Your task to perform on an android device: check the backup settings in the google photos Image 0: 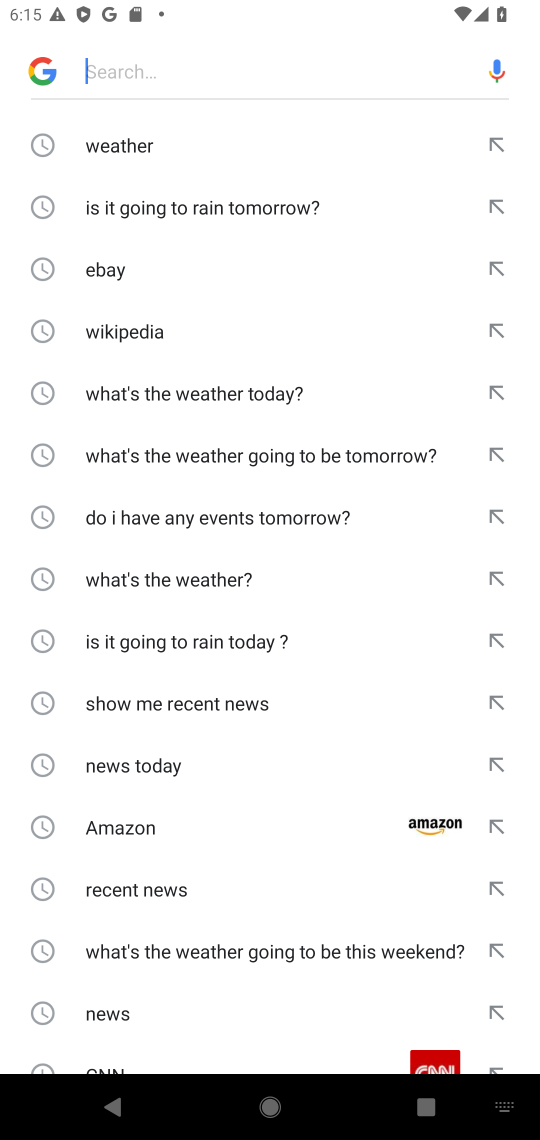
Step 0: press home button
Your task to perform on an android device: check the backup settings in the google photos Image 1: 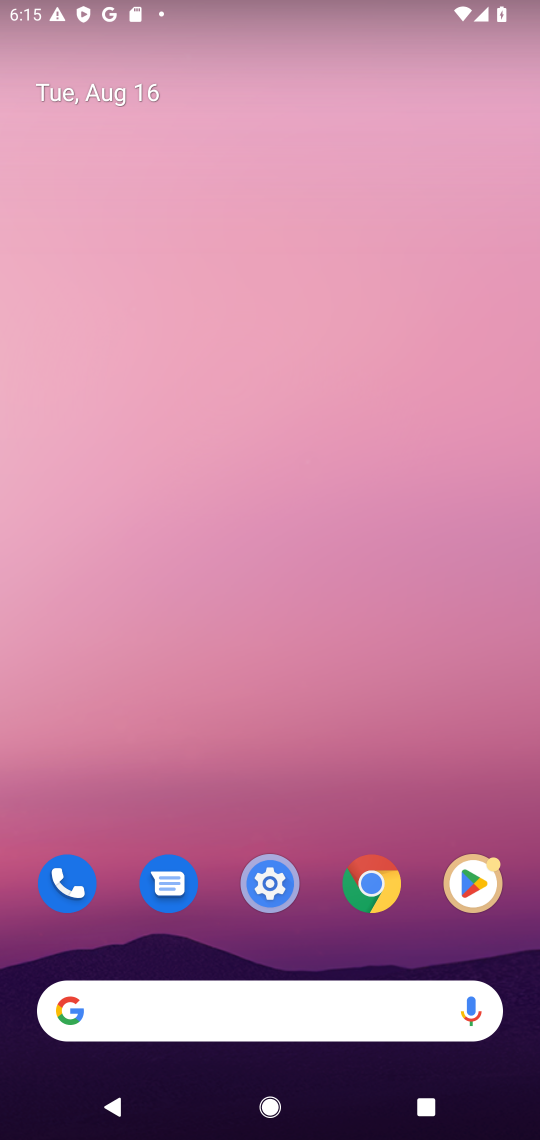
Step 1: drag from (243, 1018) to (313, 119)
Your task to perform on an android device: check the backup settings in the google photos Image 2: 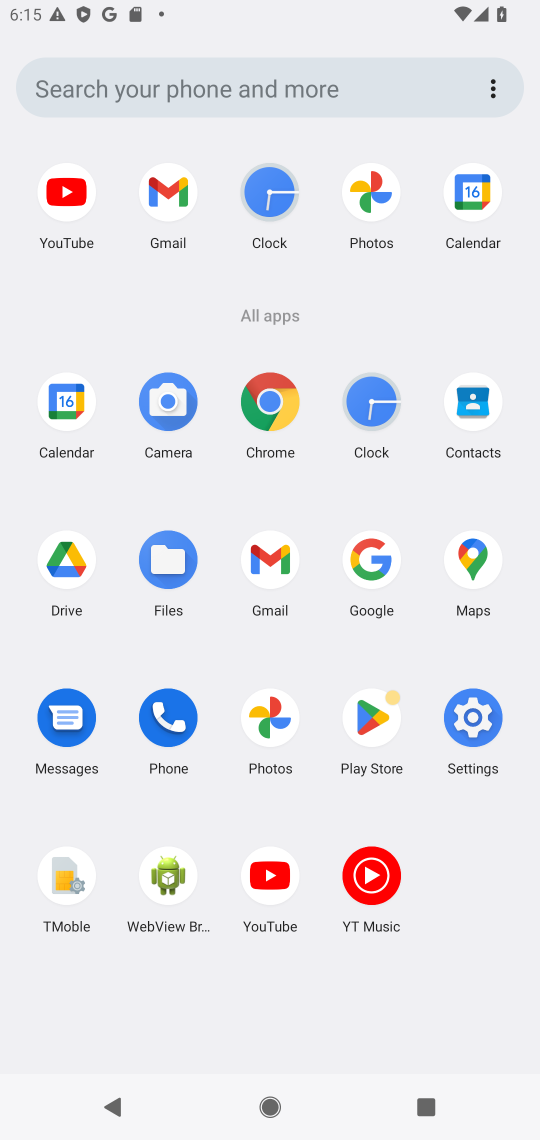
Step 2: click (265, 714)
Your task to perform on an android device: check the backup settings in the google photos Image 3: 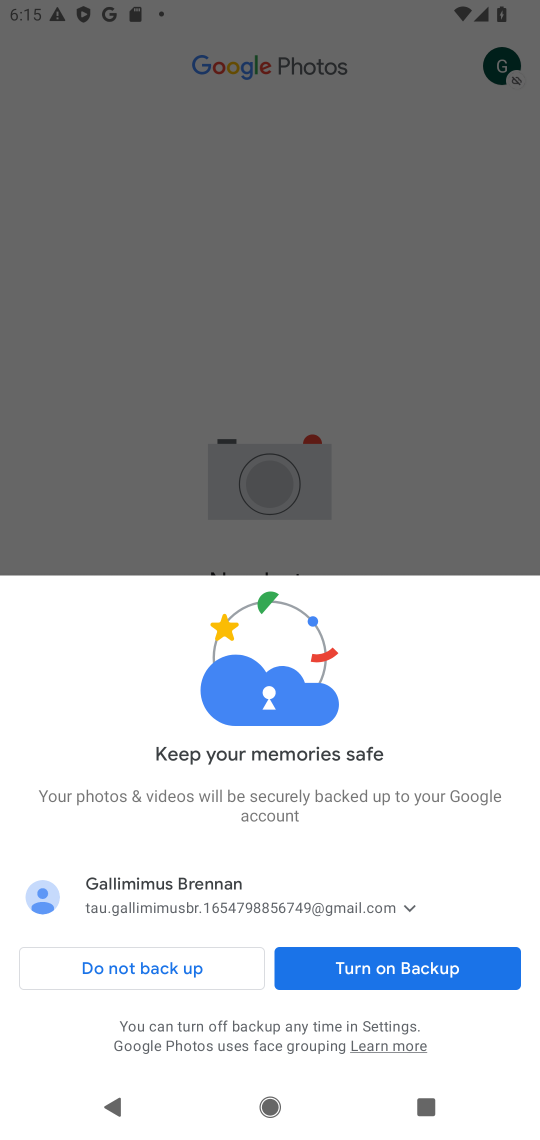
Step 3: click (349, 970)
Your task to perform on an android device: check the backup settings in the google photos Image 4: 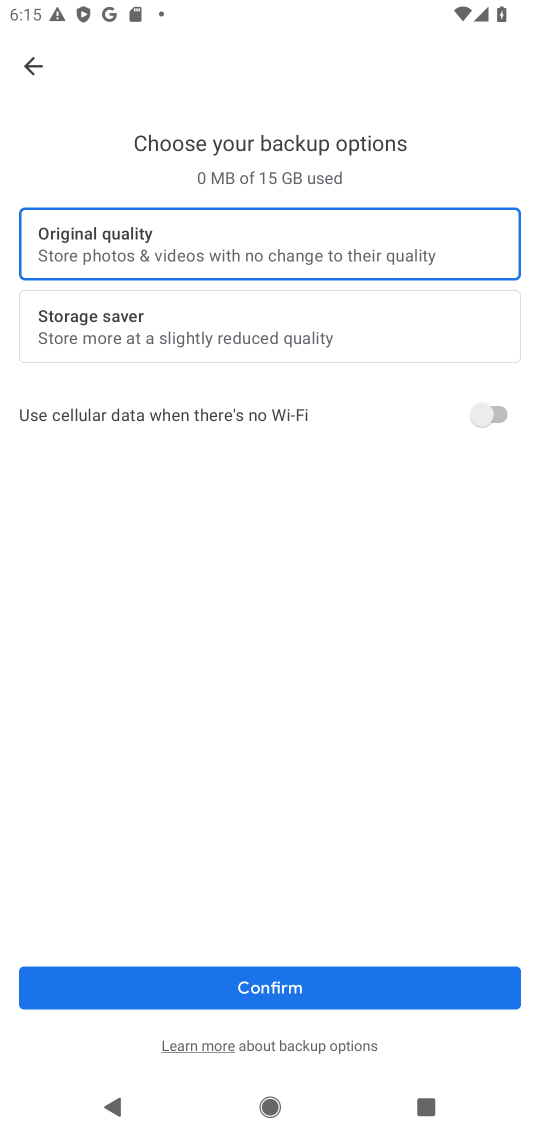
Step 4: click (286, 981)
Your task to perform on an android device: check the backup settings in the google photos Image 5: 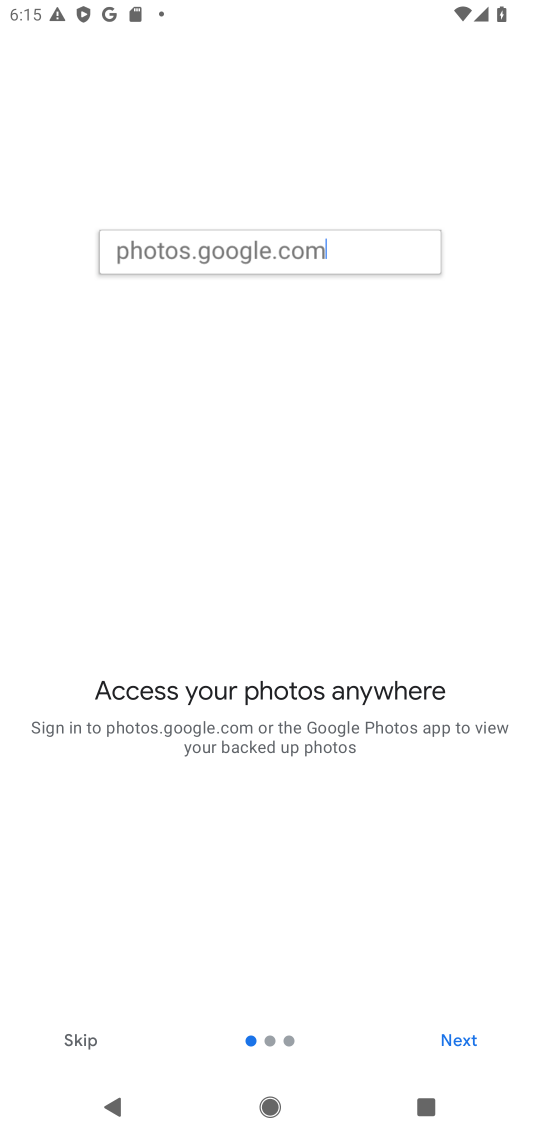
Step 5: click (459, 1047)
Your task to perform on an android device: check the backup settings in the google photos Image 6: 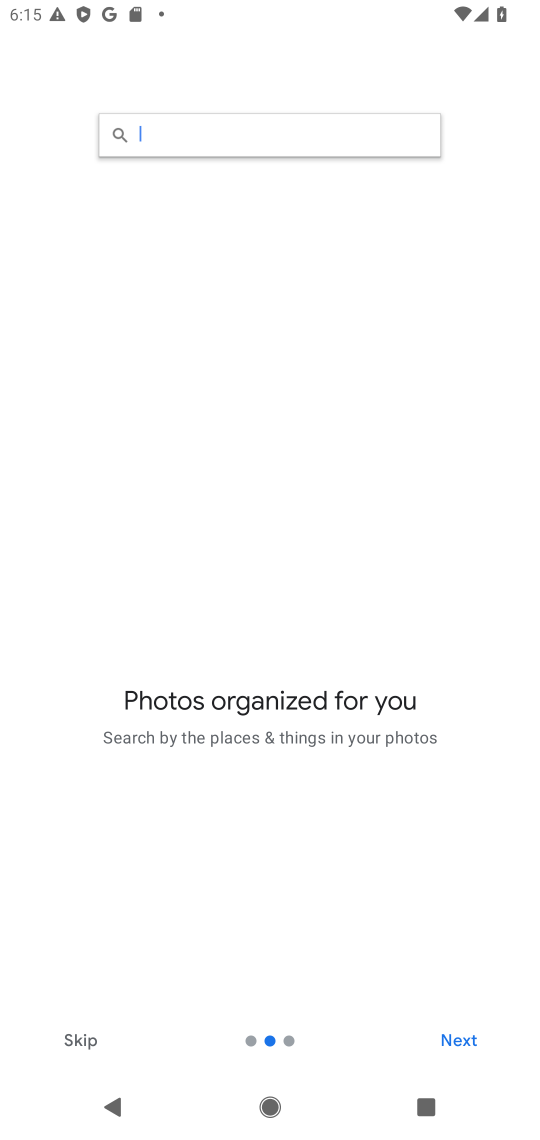
Step 6: click (459, 1047)
Your task to perform on an android device: check the backup settings in the google photos Image 7: 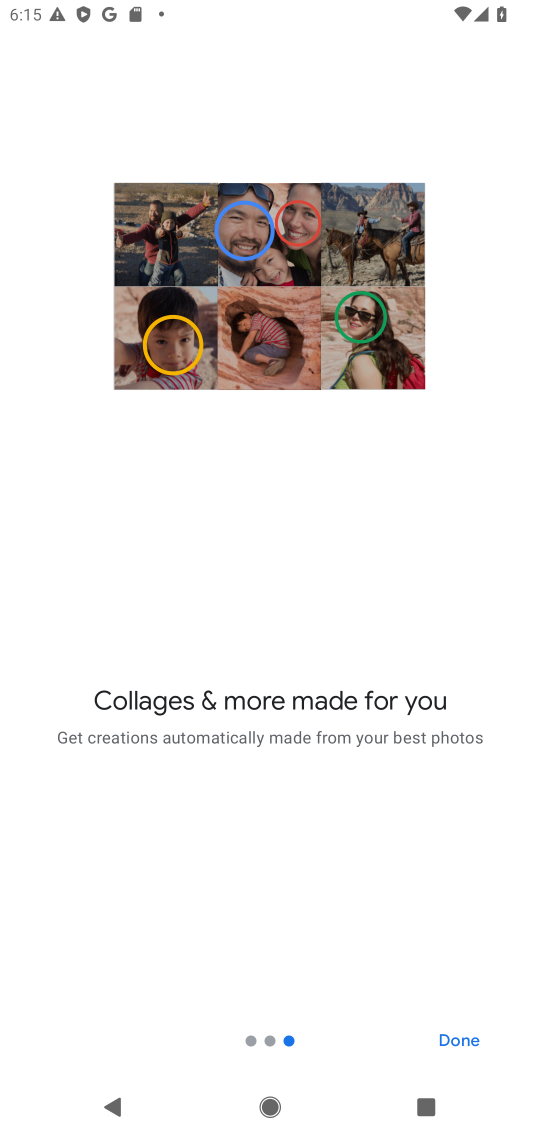
Step 7: click (459, 1047)
Your task to perform on an android device: check the backup settings in the google photos Image 8: 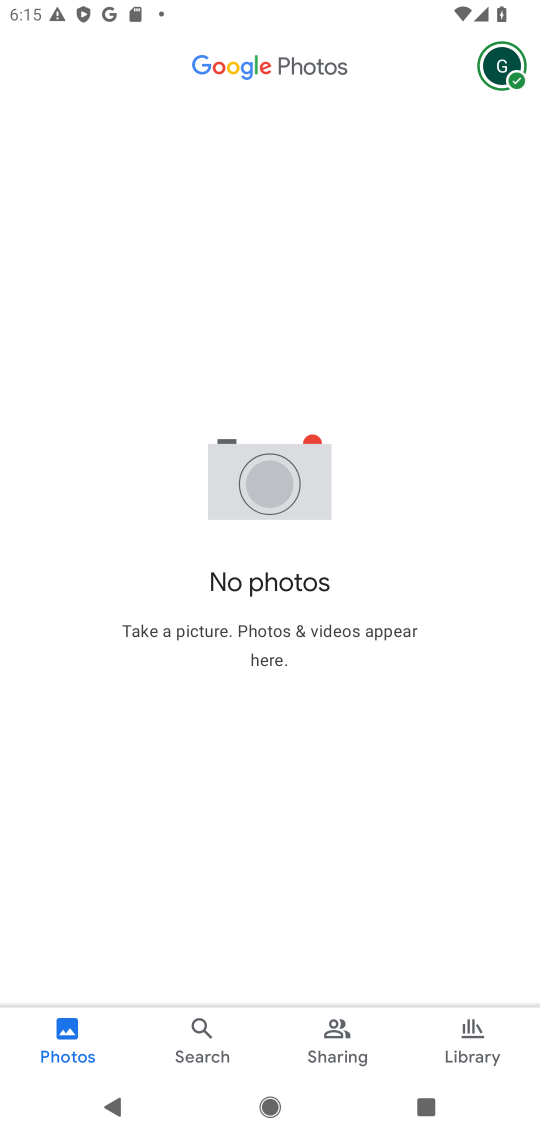
Step 8: click (504, 64)
Your task to perform on an android device: check the backup settings in the google photos Image 9: 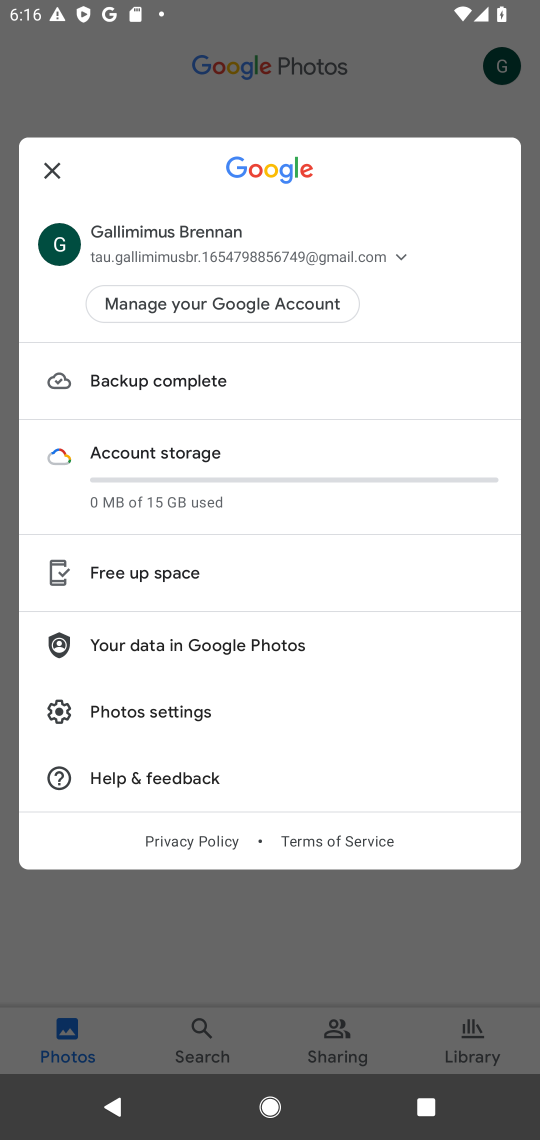
Step 9: click (173, 714)
Your task to perform on an android device: check the backup settings in the google photos Image 10: 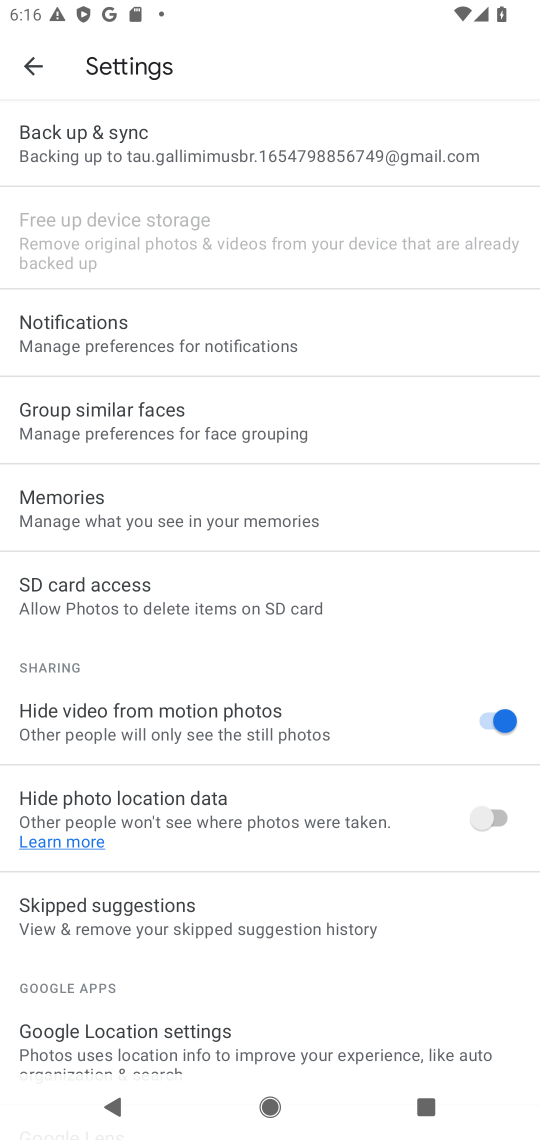
Step 10: click (205, 155)
Your task to perform on an android device: check the backup settings in the google photos Image 11: 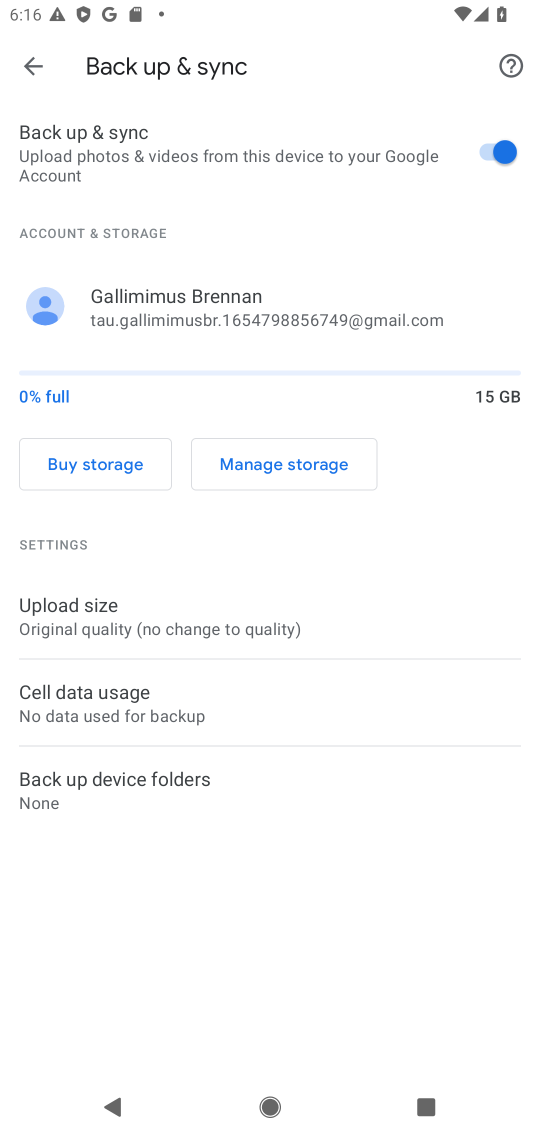
Step 11: task complete